Your task to perform on an android device: Show me the alarms in the clock app Image 0: 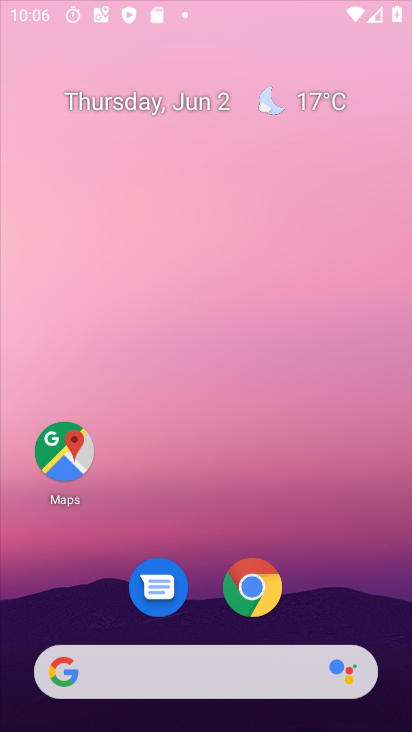
Step 0: press home button
Your task to perform on an android device: Show me the alarms in the clock app Image 1: 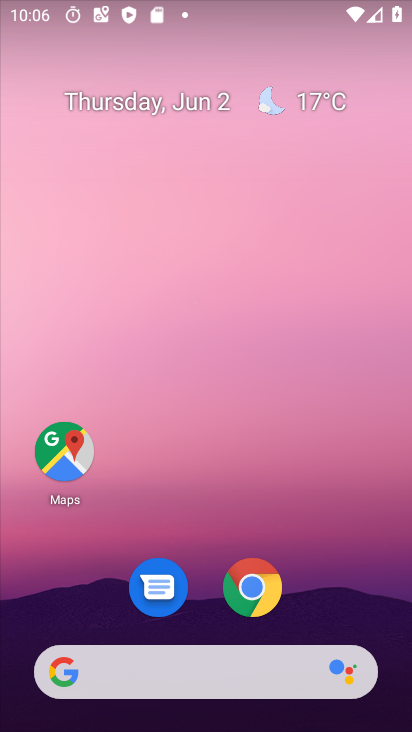
Step 1: click (63, 444)
Your task to perform on an android device: Show me the alarms in the clock app Image 2: 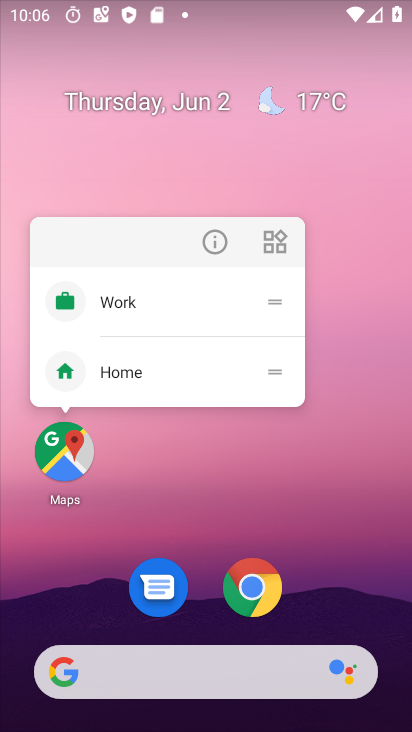
Step 2: click (63, 444)
Your task to perform on an android device: Show me the alarms in the clock app Image 3: 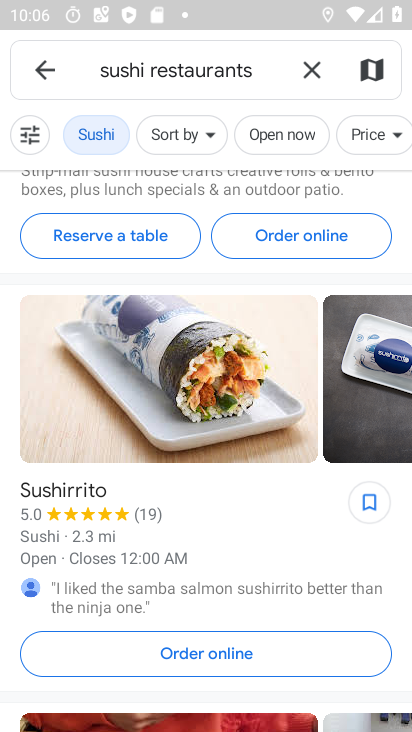
Step 3: press home button
Your task to perform on an android device: Show me the alarms in the clock app Image 4: 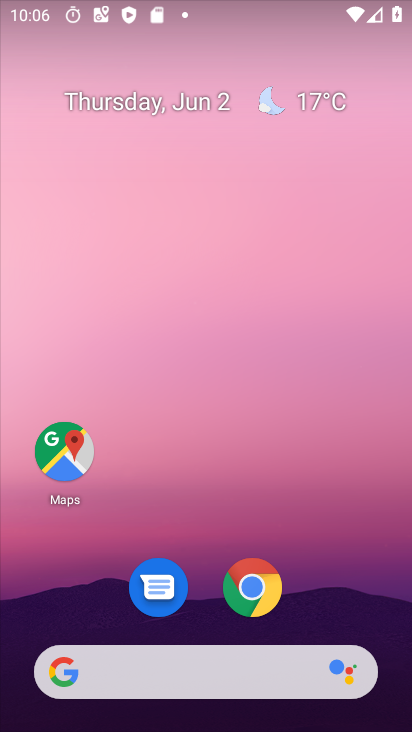
Step 4: drag from (309, 618) to (330, 196)
Your task to perform on an android device: Show me the alarms in the clock app Image 5: 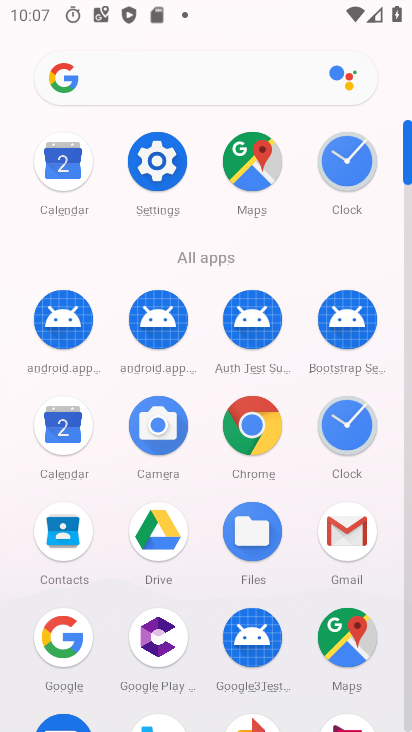
Step 5: click (346, 154)
Your task to perform on an android device: Show me the alarms in the clock app Image 6: 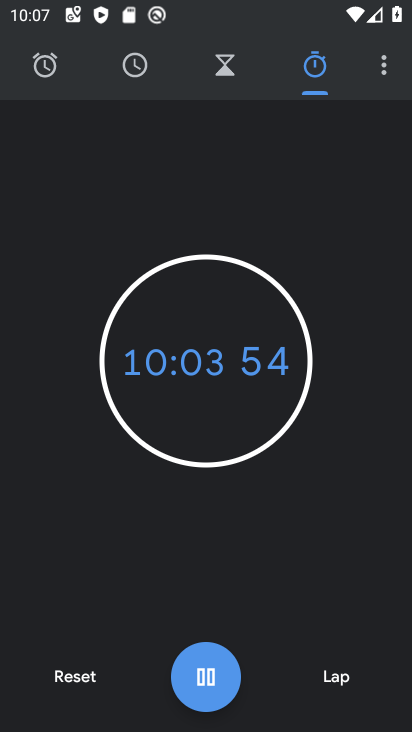
Step 6: click (78, 679)
Your task to perform on an android device: Show me the alarms in the clock app Image 7: 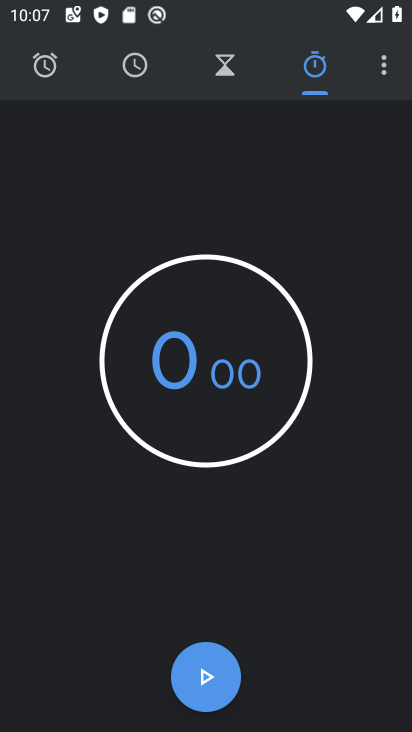
Step 7: click (385, 58)
Your task to perform on an android device: Show me the alarms in the clock app Image 8: 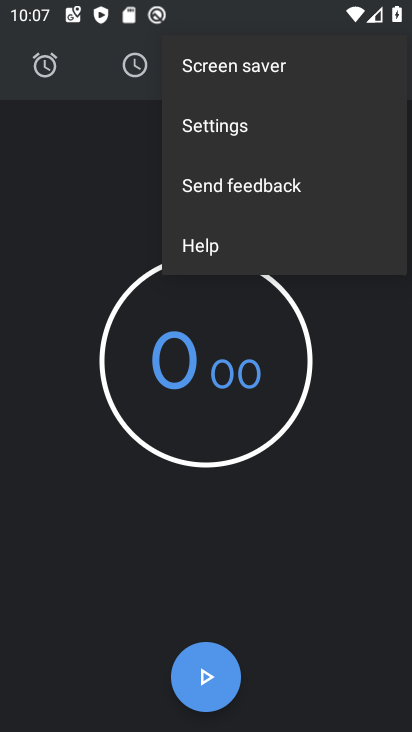
Step 8: click (262, 120)
Your task to perform on an android device: Show me the alarms in the clock app Image 9: 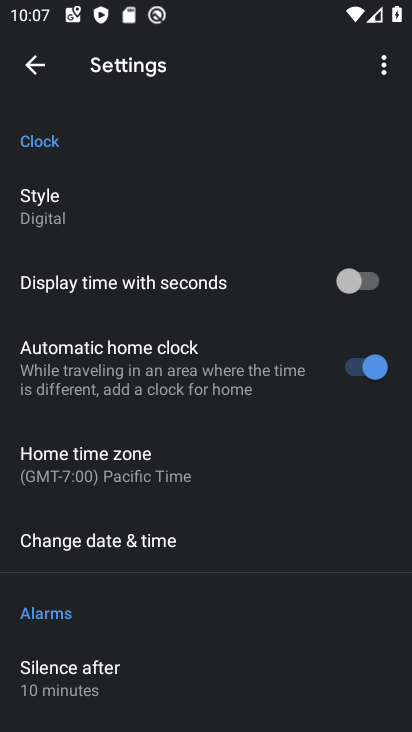
Step 9: click (34, 67)
Your task to perform on an android device: Show me the alarms in the clock app Image 10: 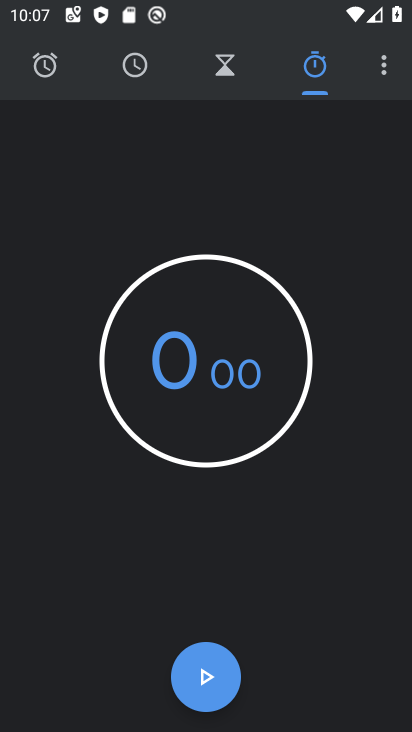
Step 10: click (47, 65)
Your task to perform on an android device: Show me the alarms in the clock app Image 11: 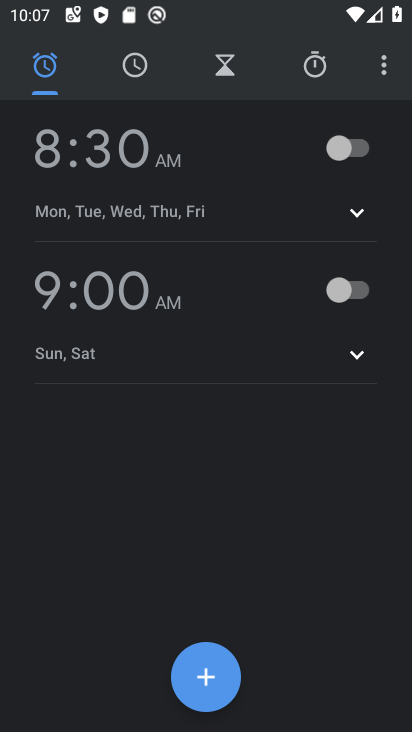
Step 11: click (360, 144)
Your task to perform on an android device: Show me the alarms in the clock app Image 12: 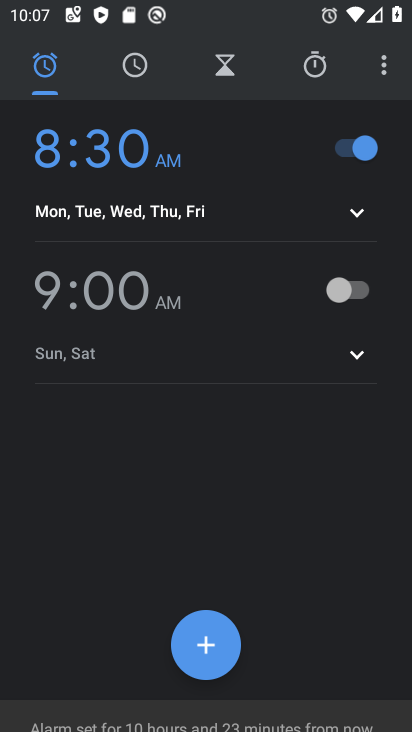
Step 12: task complete